Your task to perform on an android device: Open Youtube and go to "Your channel" Image 0: 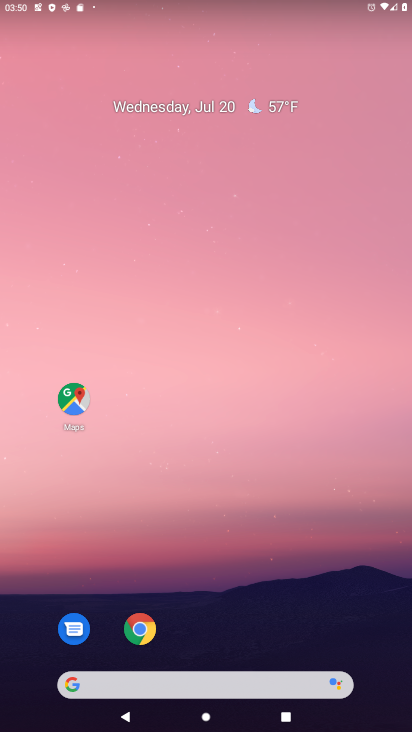
Step 0: drag from (387, 663) to (347, 95)
Your task to perform on an android device: Open Youtube and go to "Your channel" Image 1: 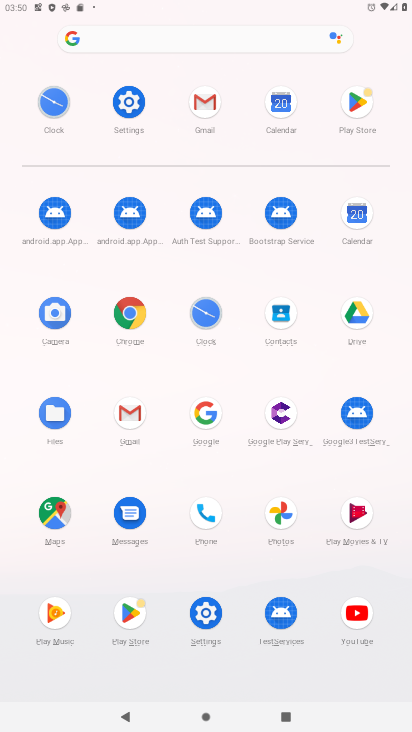
Step 1: click (357, 613)
Your task to perform on an android device: Open Youtube and go to "Your channel" Image 2: 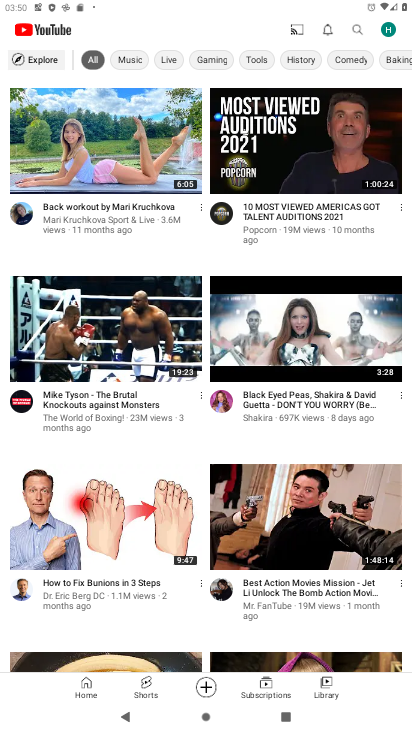
Step 2: click (388, 30)
Your task to perform on an android device: Open Youtube and go to "Your channel" Image 3: 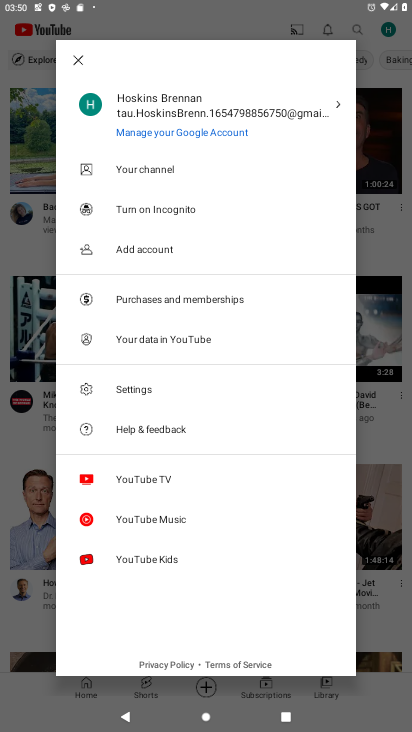
Step 3: click (137, 168)
Your task to perform on an android device: Open Youtube and go to "Your channel" Image 4: 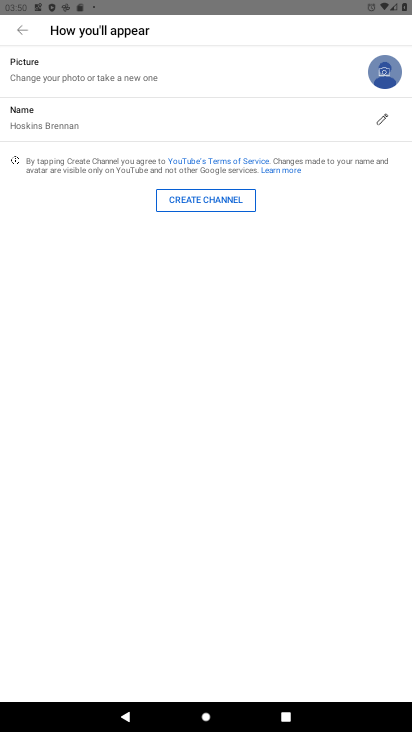
Step 4: task complete